Your task to perform on an android device: turn on bluetooth scan Image 0: 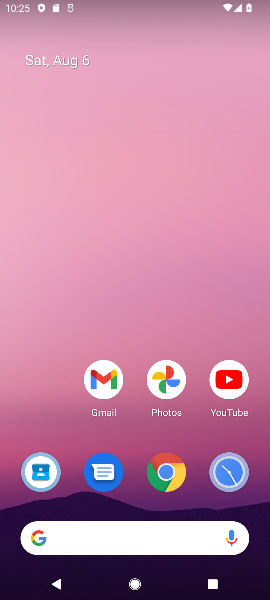
Step 0: drag from (171, 234) to (130, 2)
Your task to perform on an android device: turn on bluetooth scan Image 1: 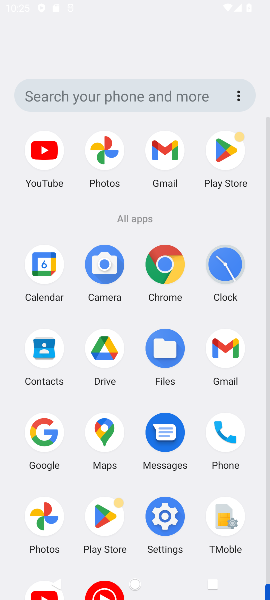
Step 1: drag from (191, 457) to (146, 28)
Your task to perform on an android device: turn on bluetooth scan Image 2: 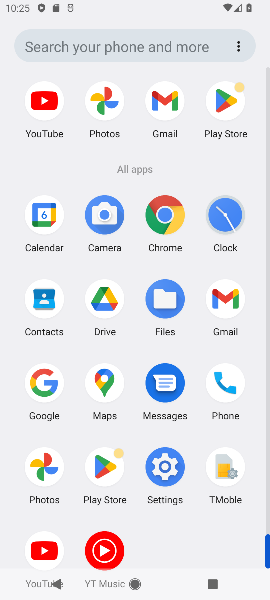
Step 2: click (169, 452)
Your task to perform on an android device: turn on bluetooth scan Image 3: 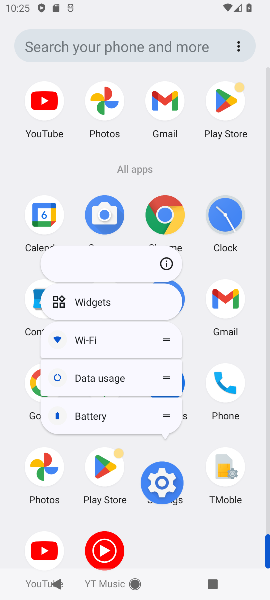
Step 3: click (165, 468)
Your task to perform on an android device: turn on bluetooth scan Image 4: 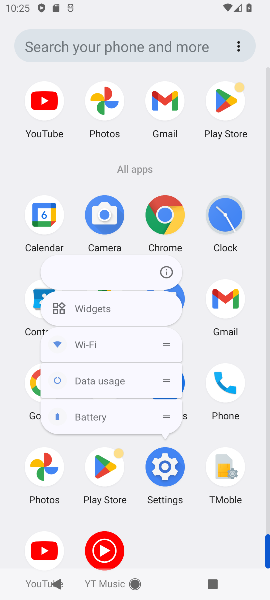
Step 4: click (170, 471)
Your task to perform on an android device: turn on bluetooth scan Image 5: 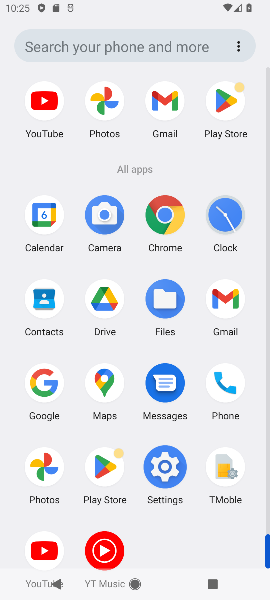
Step 5: click (169, 476)
Your task to perform on an android device: turn on bluetooth scan Image 6: 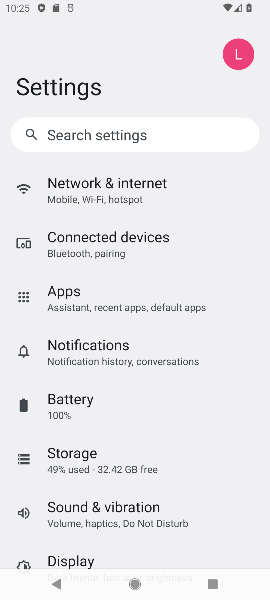
Step 6: drag from (76, 465) to (96, 163)
Your task to perform on an android device: turn on bluetooth scan Image 7: 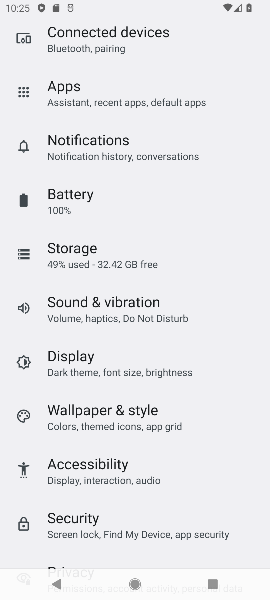
Step 7: drag from (112, 482) to (70, 163)
Your task to perform on an android device: turn on bluetooth scan Image 8: 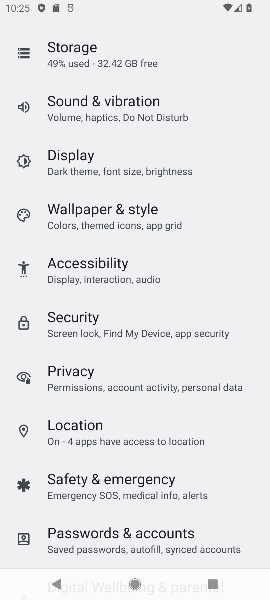
Step 8: click (75, 430)
Your task to perform on an android device: turn on bluetooth scan Image 9: 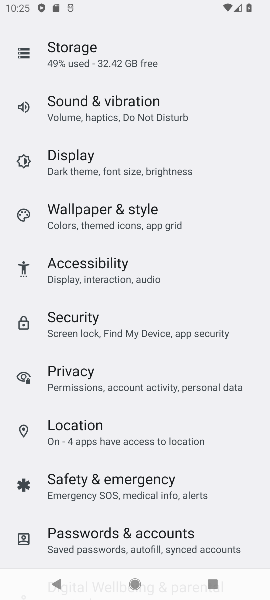
Step 9: click (75, 430)
Your task to perform on an android device: turn on bluetooth scan Image 10: 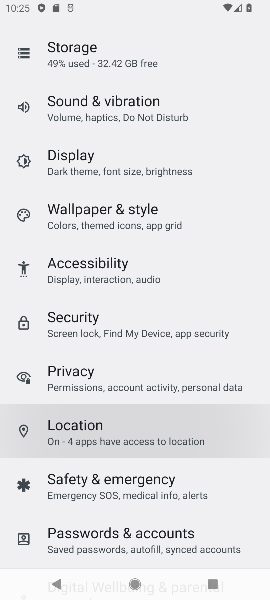
Step 10: click (75, 430)
Your task to perform on an android device: turn on bluetooth scan Image 11: 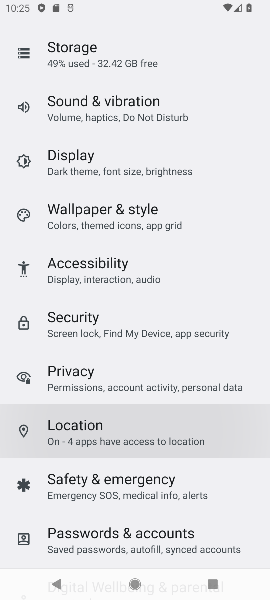
Step 11: click (75, 430)
Your task to perform on an android device: turn on bluetooth scan Image 12: 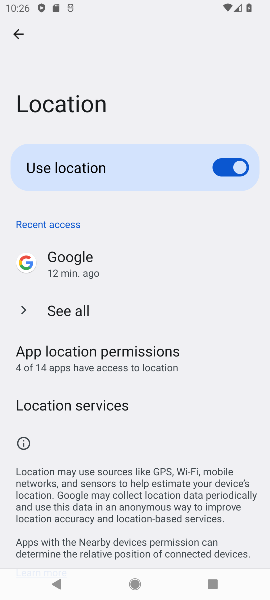
Step 12: click (90, 356)
Your task to perform on an android device: turn on bluetooth scan Image 13: 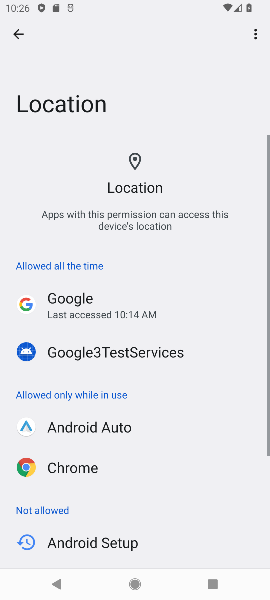
Step 13: drag from (121, 474) to (50, 173)
Your task to perform on an android device: turn on bluetooth scan Image 14: 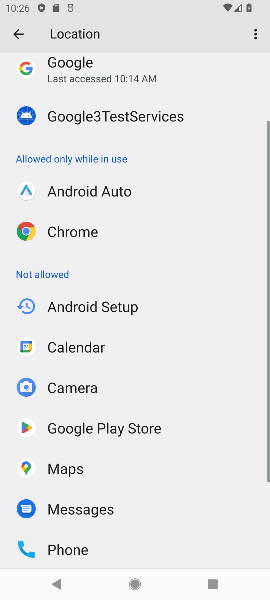
Step 14: drag from (132, 417) to (69, 110)
Your task to perform on an android device: turn on bluetooth scan Image 15: 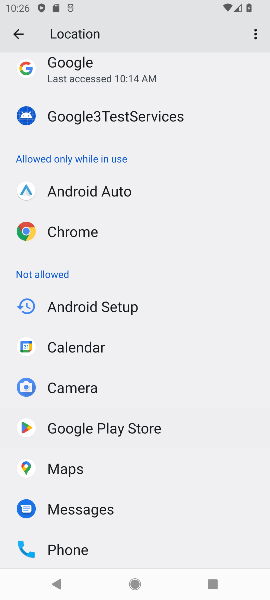
Step 15: click (18, 24)
Your task to perform on an android device: turn on bluetooth scan Image 16: 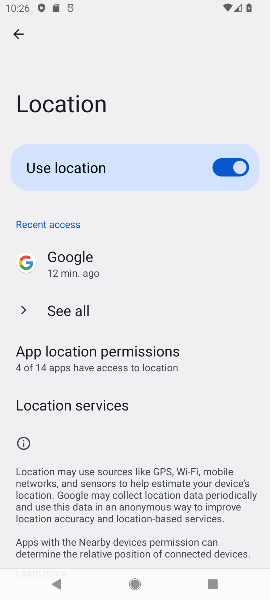
Step 16: click (74, 406)
Your task to perform on an android device: turn on bluetooth scan Image 17: 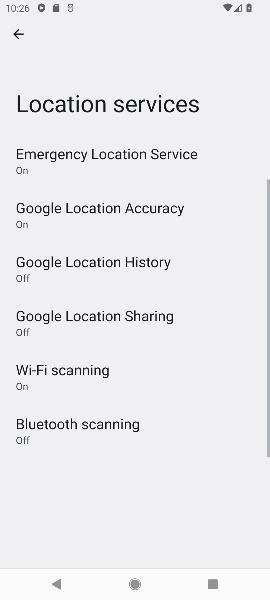
Step 17: click (43, 426)
Your task to perform on an android device: turn on bluetooth scan Image 18: 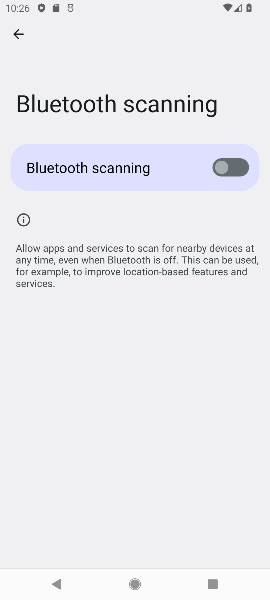
Step 18: click (229, 159)
Your task to perform on an android device: turn on bluetooth scan Image 19: 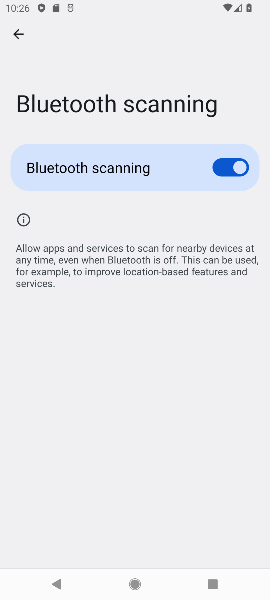
Step 19: task complete